Your task to perform on an android device: turn off improve location accuracy Image 0: 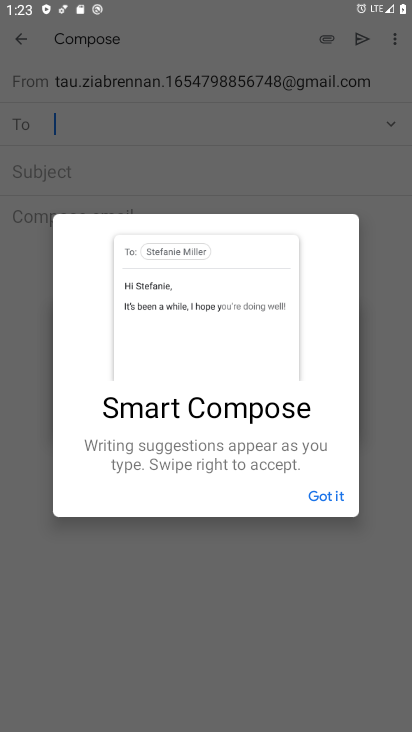
Step 0: press home button
Your task to perform on an android device: turn off improve location accuracy Image 1: 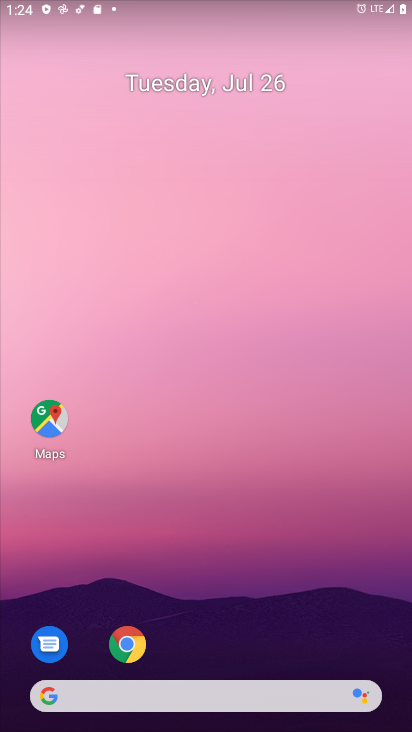
Step 1: drag from (267, 717) to (257, 21)
Your task to perform on an android device: turn off improve location accuracy Image 2: 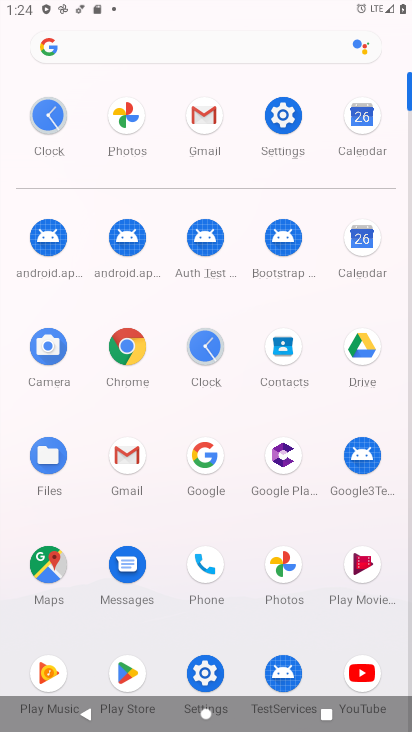
Step 2: click (285, 124)
Your task to perform on an android device: turn off improve location accuracy Image 3: 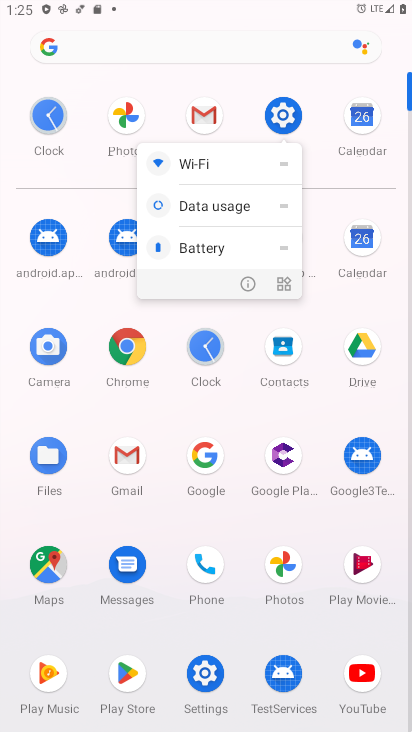
Step 3: click (289, 113)
Your task to perform on an android device: turn off improve location accuracy Image 4: 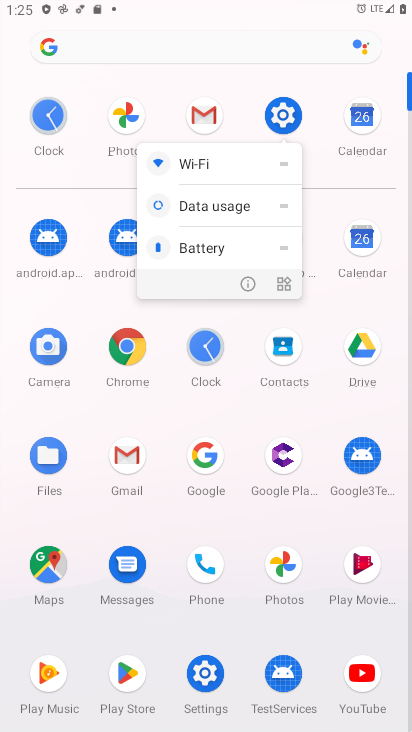
Step 4: click (289, 113)
Your task to perform on an android device: turn off improve location accuracy Image 5: 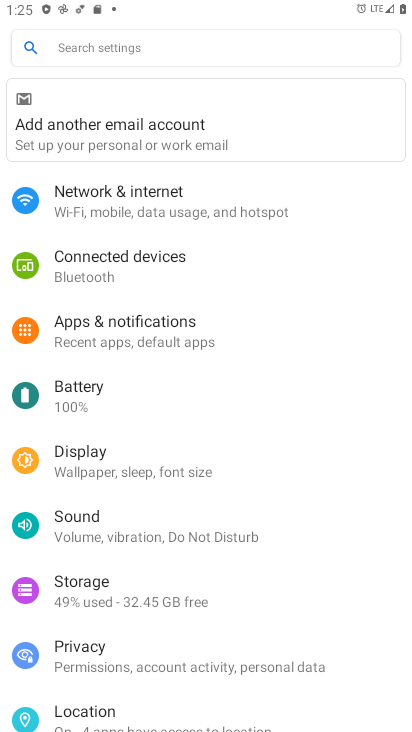
Step 5: click (163, 710)
Your task to perform on an android device: turn off improve location accuracy Image 6: 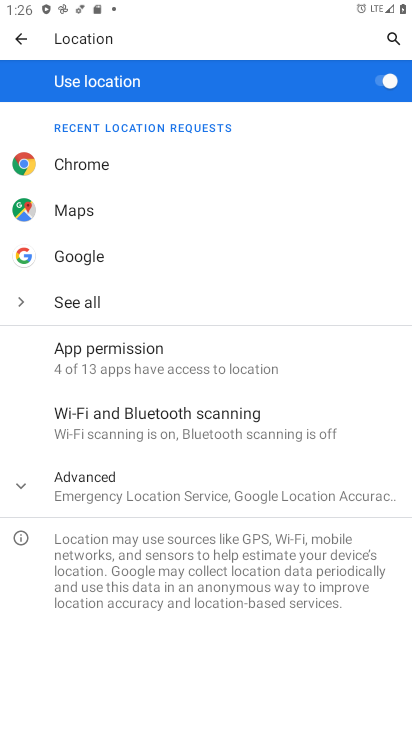
Step 6: click (249, 492)
Your task to perform on an android device: turn off improve location accuracy Image 7: 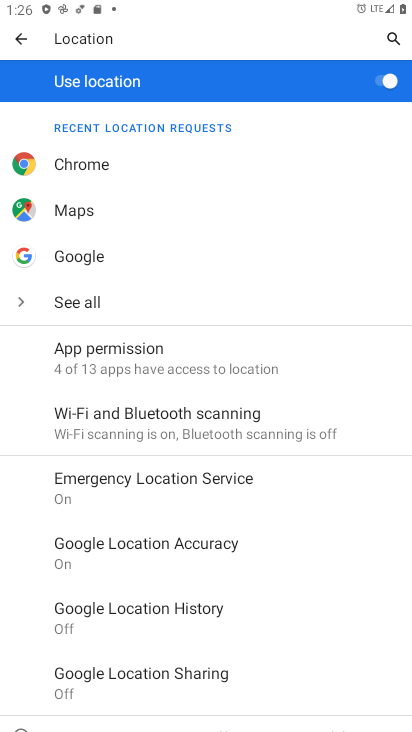
Step 7: click (237, 538)
Your task to perform on an android device: turn off improve location accuracy Image 8: 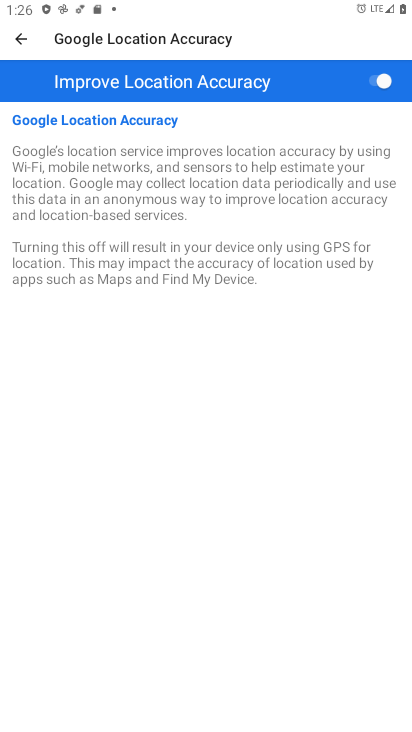
Step 8: click (392, 85)
Your task to perform on an android device: turn off improve location accuracy Image 9: 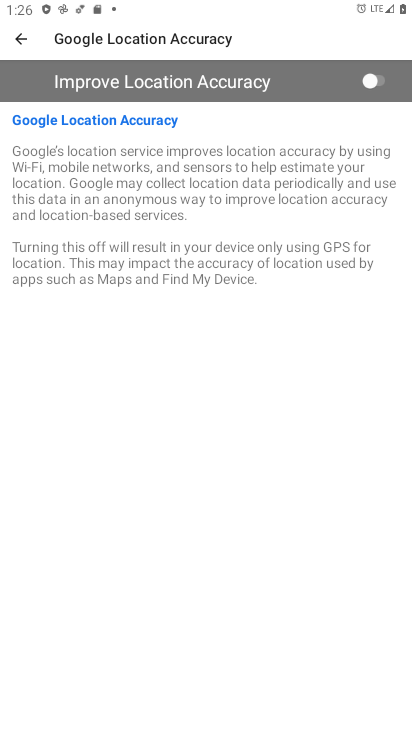
Step 9: task complete